Your task to perform on an android device: Open maps Image 0: 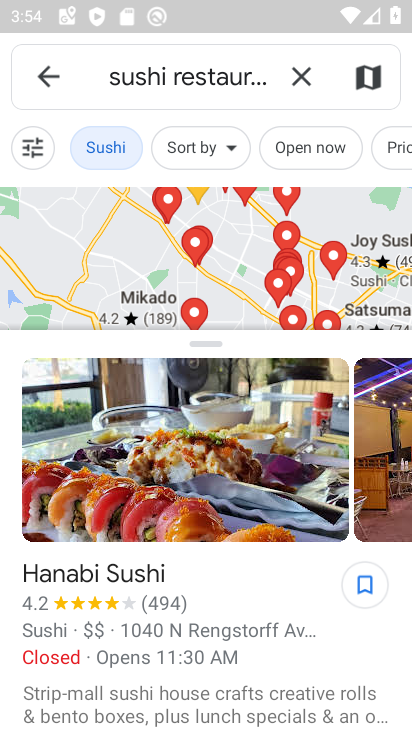
Step 0: press back button
Your task to perform on an android device: Open maps Image 1: 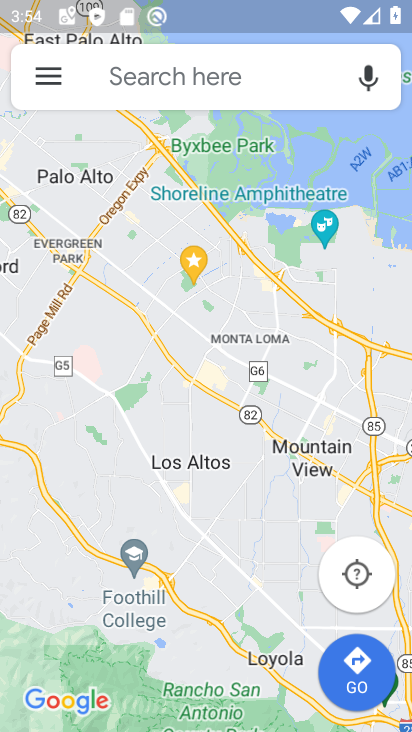
Step 1: task complete